Your task to perform on an android device: Go to Google Image 0: 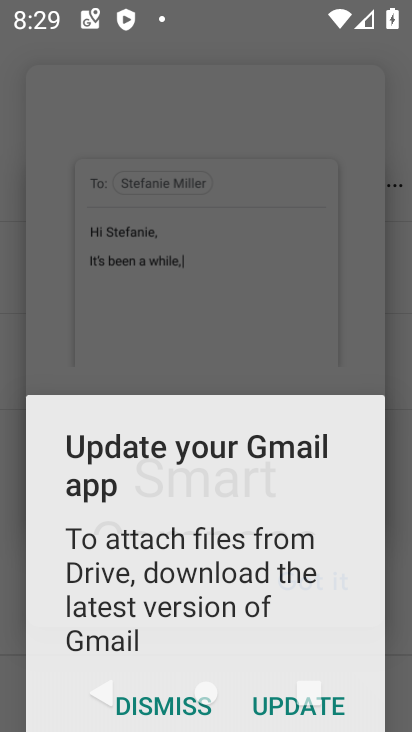
Step 0: press home button
Your task to perform on an android device: Go to Google Image 1: 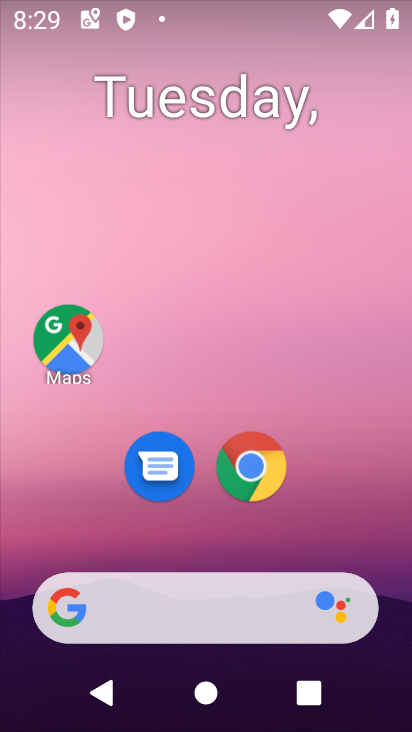
Step 1: click (254, 475)
Your task to perform on an android device: Go to Google Image 2: 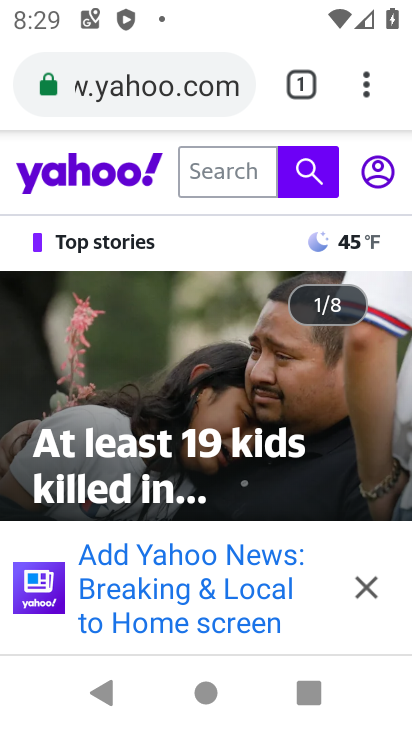
Step 2: click (192, 106)
Your task to perform on an android device: Go to Google Image 3: 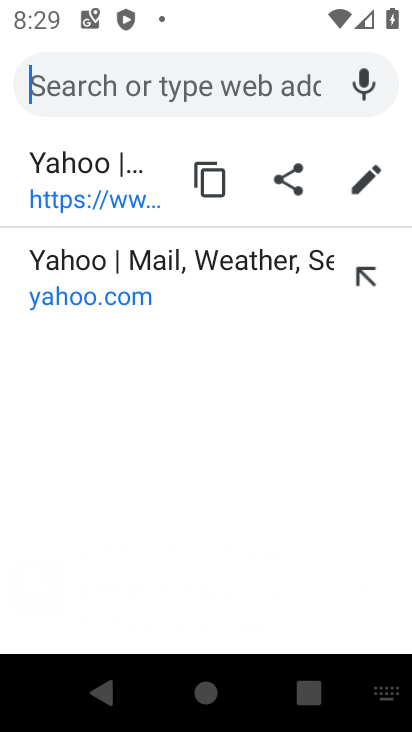
Step 3: type "google.com"
Your task to perform on an android device: Go to Google Image 4: 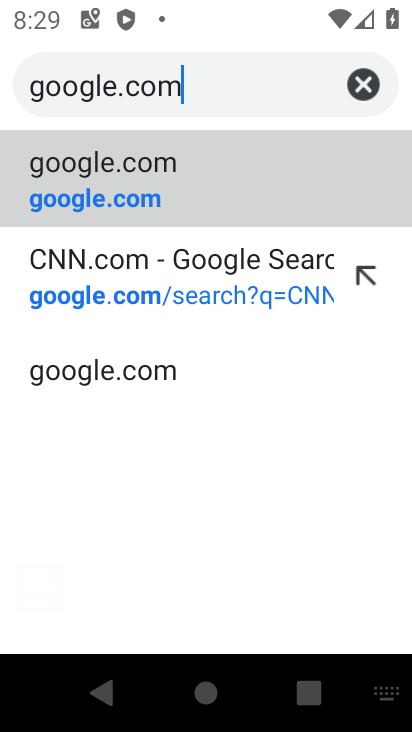
Step 4: click (220, 182)
Your task to perform on an android device: Go to Google Image 5: 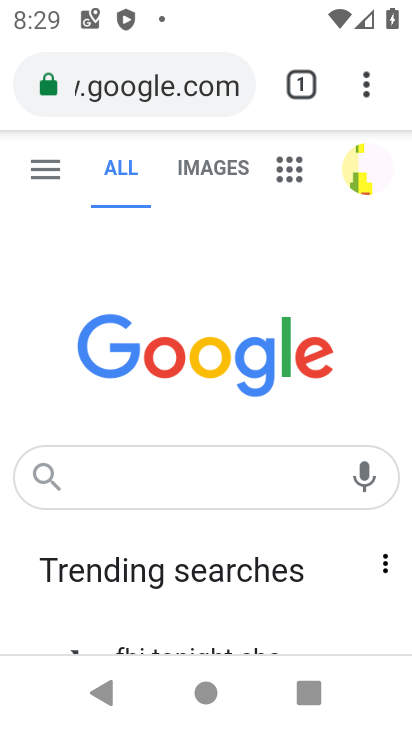
Step 5: task complete